Your task to perform on an android device: turn on javascript in the chrome app Image 0: 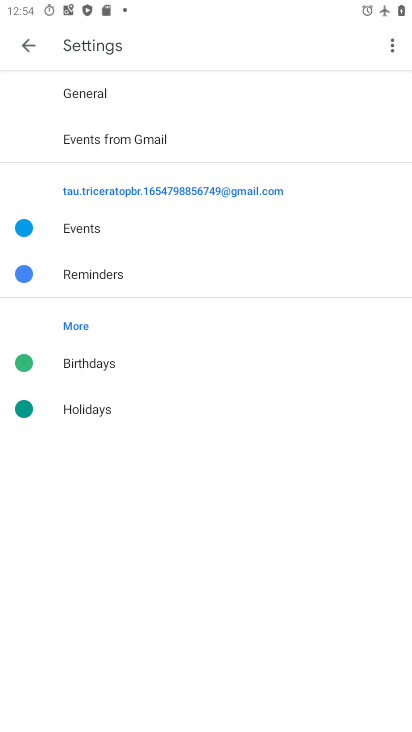
Step 0: press home button
Your task to perform on an android device: turn on javascript in the chrome app Image 1: 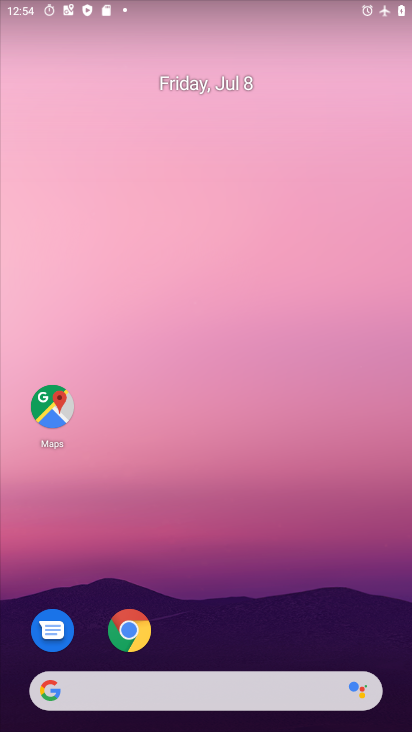
Step 1: click (152, 621)
Your task to perform on an android device: turn on javascript in the chrome app Image 2: 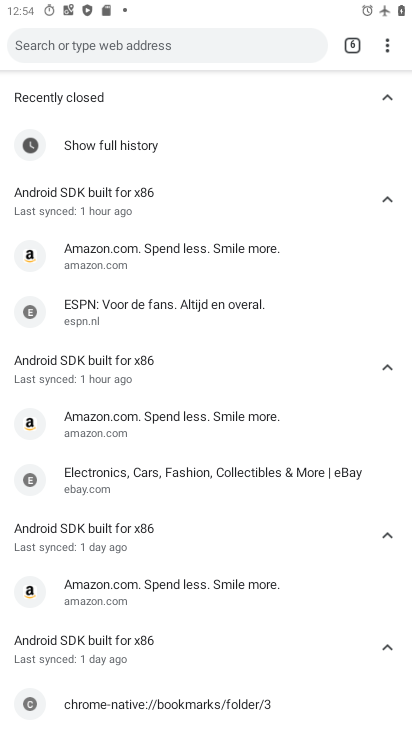
Step 2: click (386, 43)
Your task to perform on an android device: turn on javascript in the chrome app Image 3: 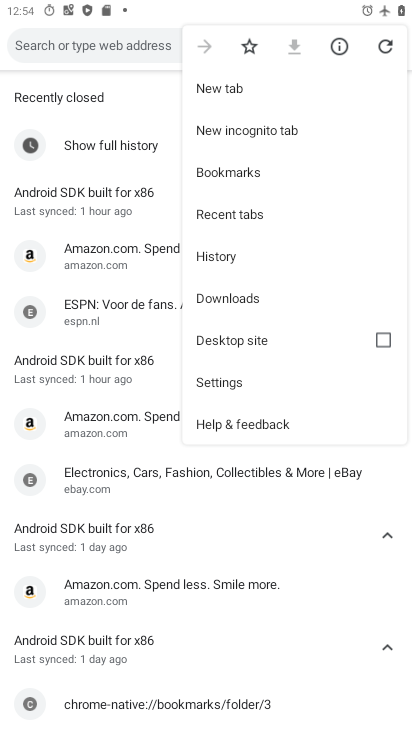
Step 3: click (232, 389)
Your task to perform on an android device: turn on javascript in the chrome app Image 4: 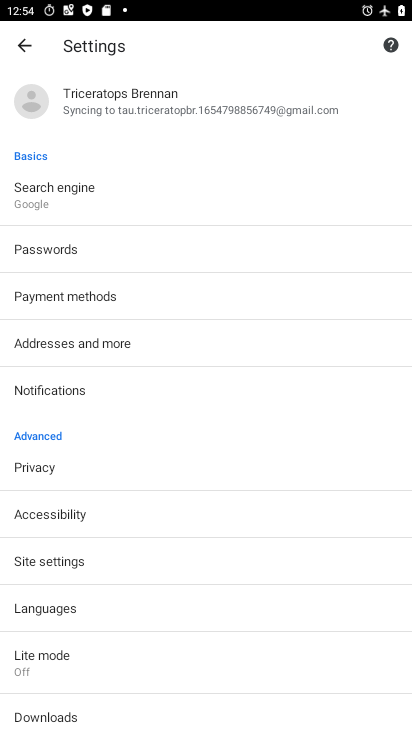
Step 4: drag from (150, 642) to (149, 361)
Your task to perform on an android device: turn on javascript in the chrome app Image 5: 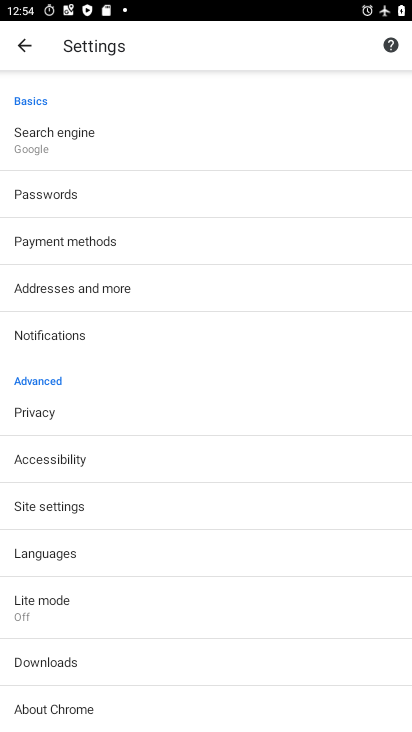
Step 5: click (87, 492)
Your task to perform on an android device: turn on javascript in the chrome app Image 6: 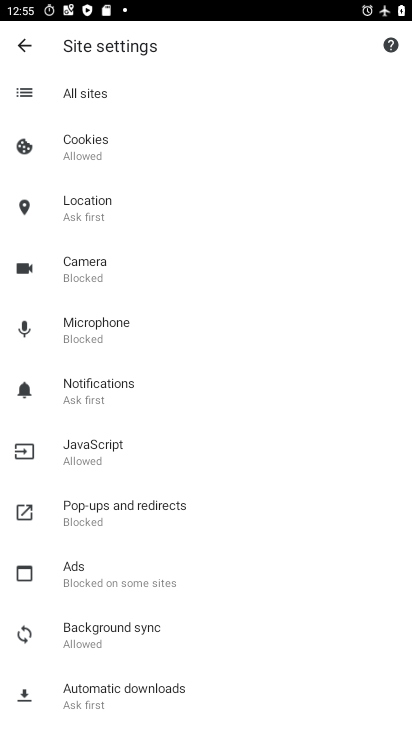
Step 6: click (120, 467)
Your task to perform on an android device: turn on javascript in the chrome app Image 7: 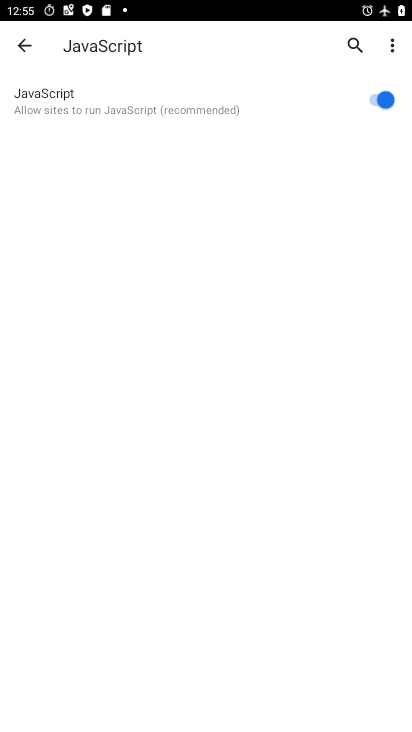
Step 7: task complete